Your task to perform on an android device: Go to Yahoo.com Image 0: 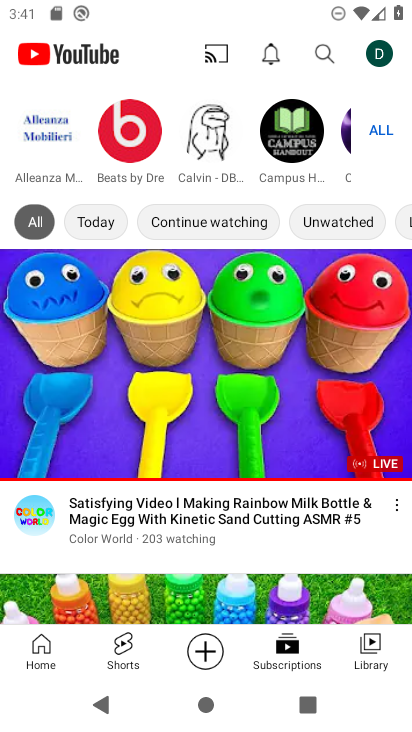
Step 0: press home button
Your task to perform on an android device: Go to Yahoo.com Image 1: 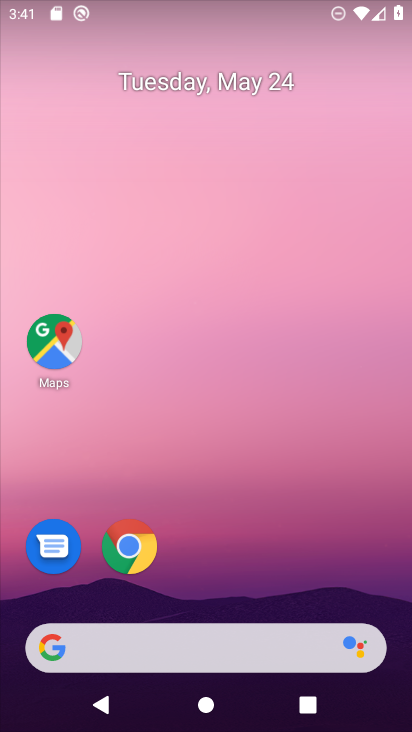
Step 1: click (138, 542)
Your task to perform on an android device: Go to Yahoo.com Image 2: 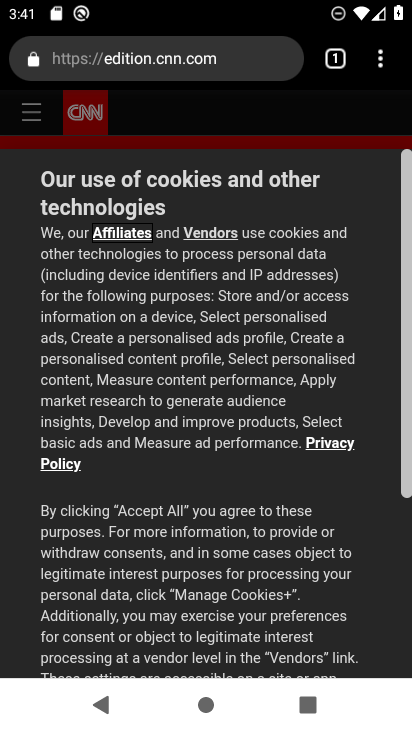
Step 2: click (341, 63)
Your task to perform on an android device: Go to Yahoo.com Image 3: 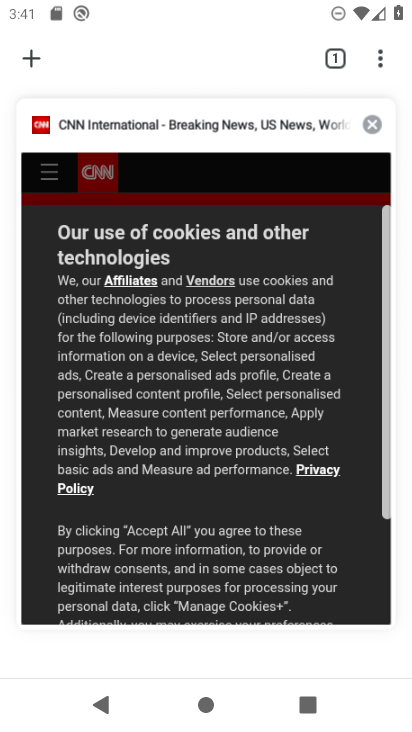
Step 3: click (29, 59)
Your task to perform on an android device: Go to Yahoo.com Image 4: 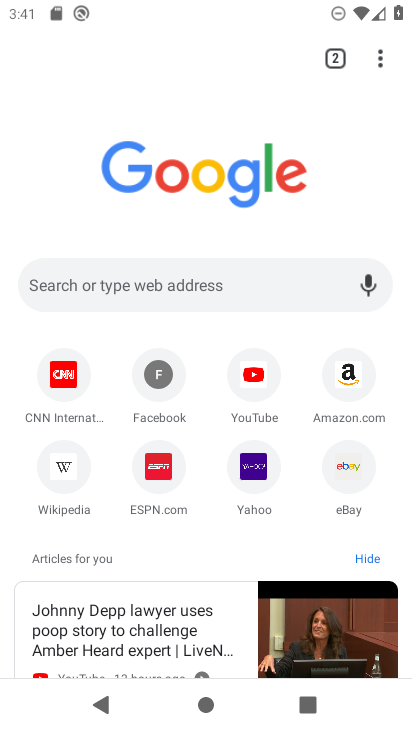
Step 4: click (255, 481)
Your task to perform on an android device: Go to Yahoo.com Image 5: 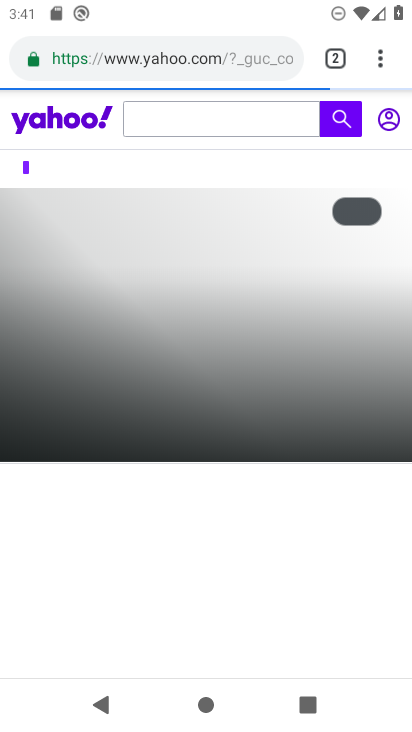
Step 5: task complete